Your task to perform on an android device: turn on airplane mode Image 0: 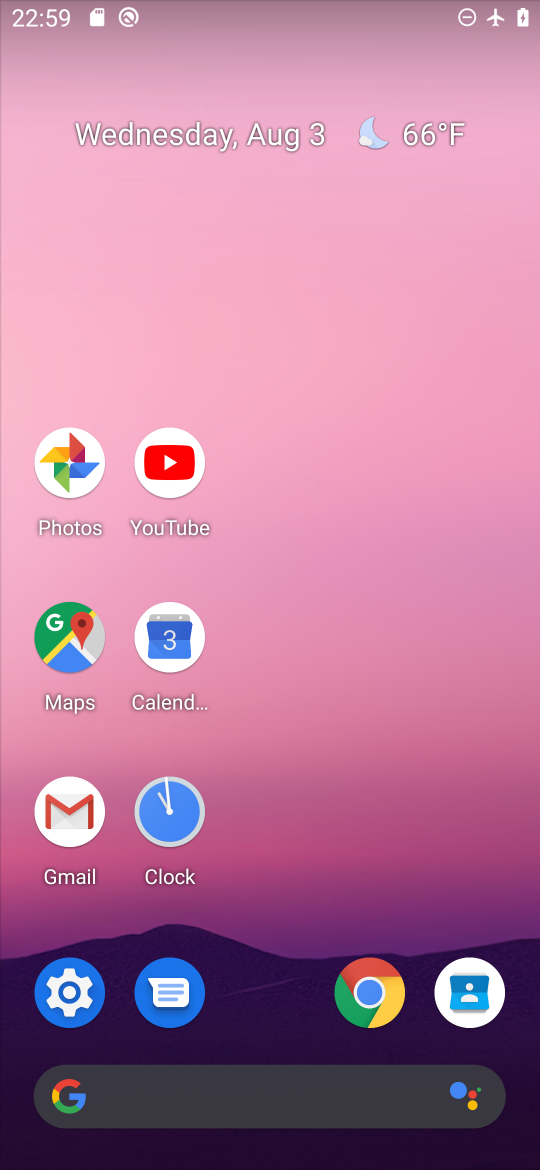
Step 0: click (67, 975)
Your task to perform on an android device: turn on airplane mode Image 1: 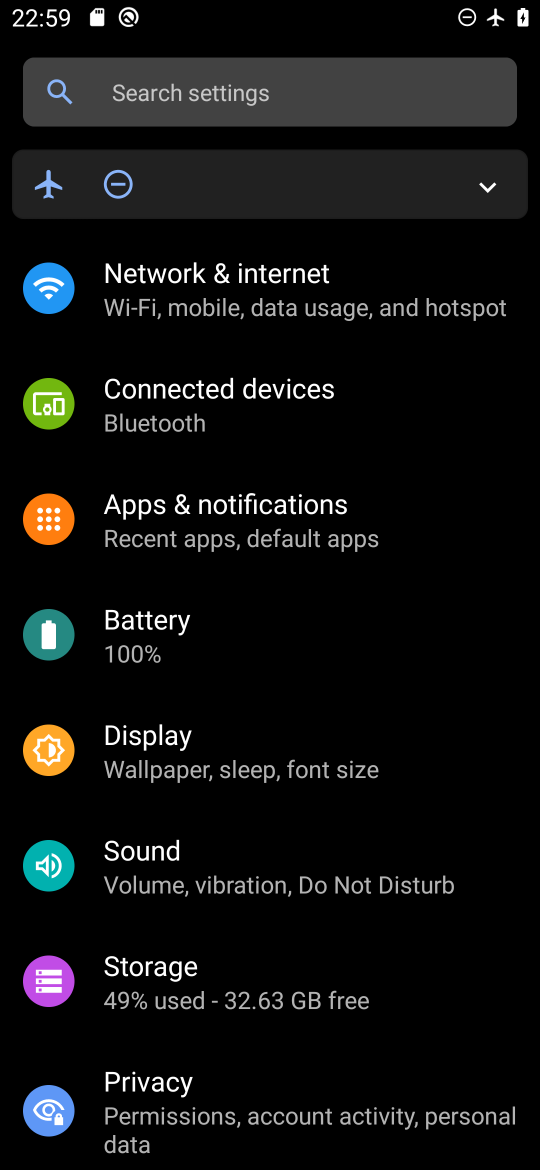
Step 1: click (244, 279)
Your task to perform on an android device: turn on airplane mode Image 2: 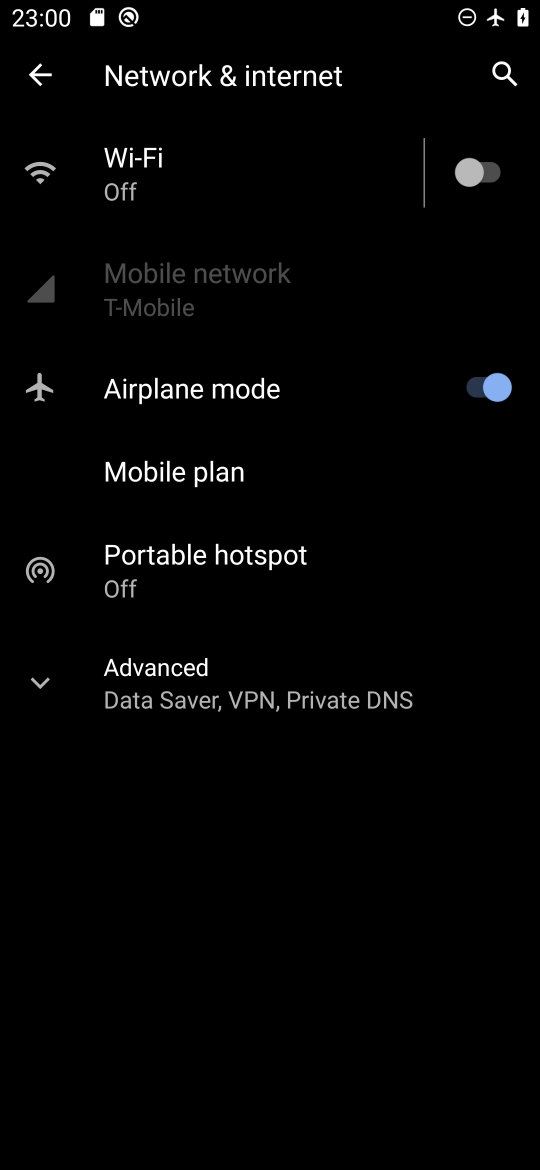
Step 2: task complete